Your task to perform on an android device: refresh tabs in the chrome app Image 0: 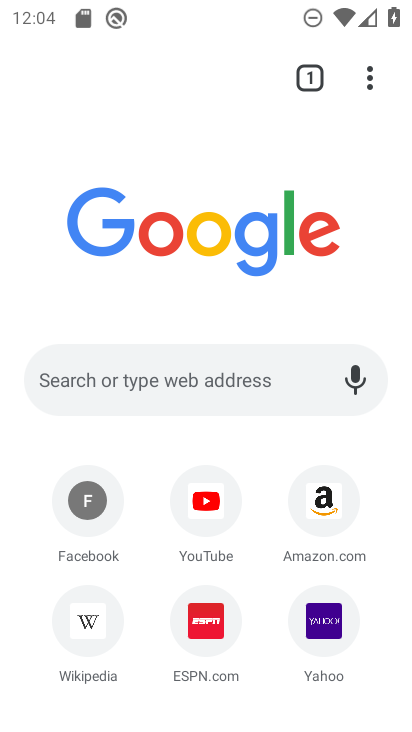
Step 0: press home button
Your task to perform on an android device: refresh tabs in the chrome app Image 1: 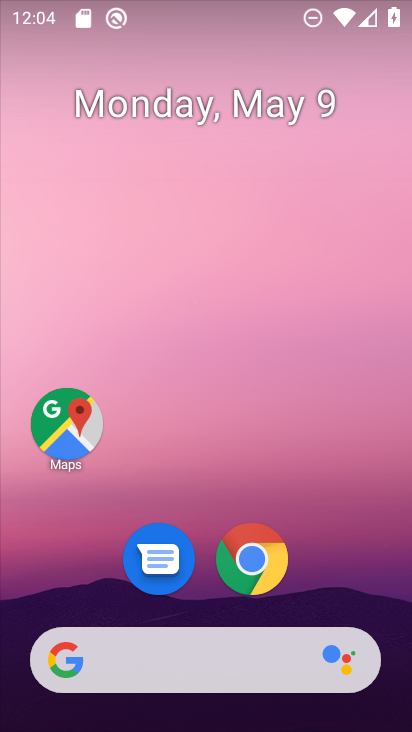
Step 1: drag from (359, 562) to (294, 23)
Your task to perform on an android device: refresh tabs in the chrome app Image 2: 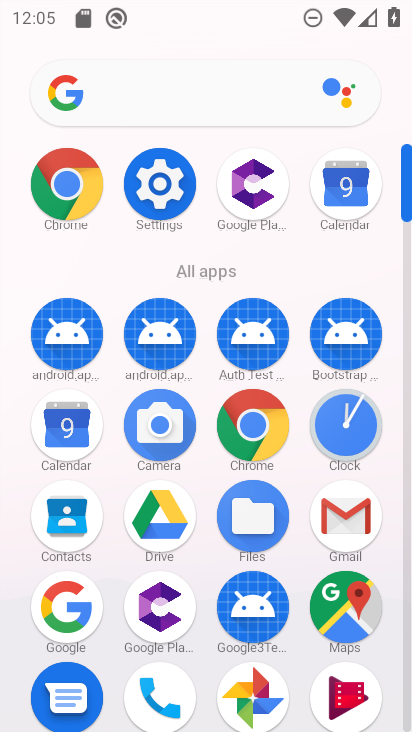
Step 2: click (41, 211)
Your task to perform on an android device: refresh tabs in the chrome app Image 3: 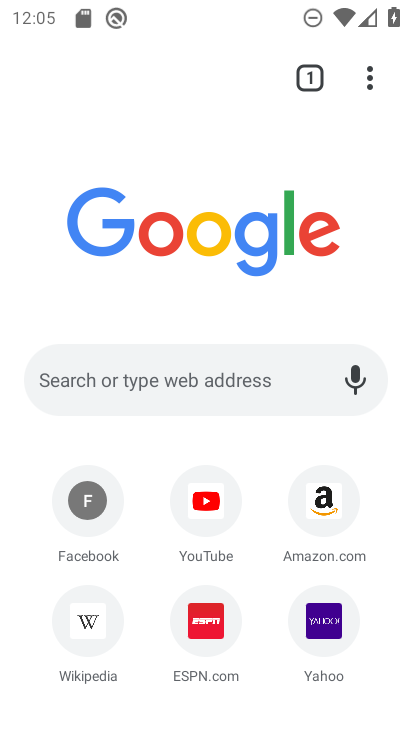
Step 3: click (358, 66)
Your task to perform on an android device: refresh tabs in the chrome app Image 4: 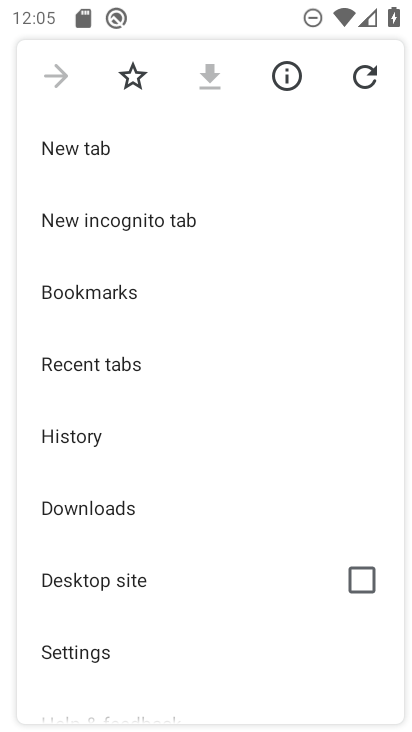
Step 4: click (353, 76)
Your task to perform on an android device: refresh tabs in the chrome app Image 5: 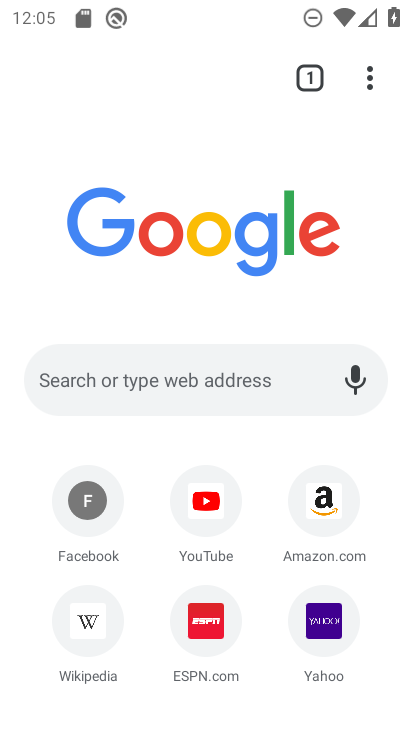
Step 5: task complete